Your task to perform on an android device: set the timer Image 0: 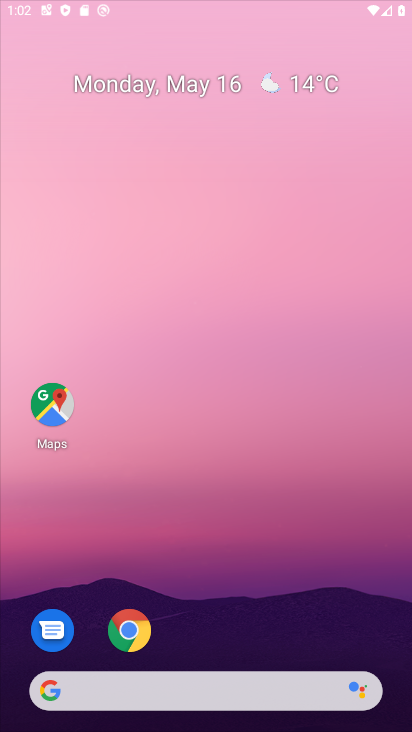
Step 0: click (205, 56)
Your task to perform on an android device: set the timer Image 1: 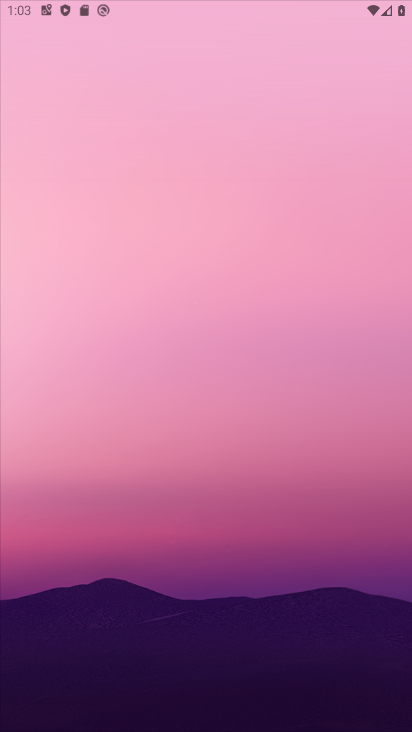
Step 1: press home button
Your task to perform on an android device: set the timer Image 2: 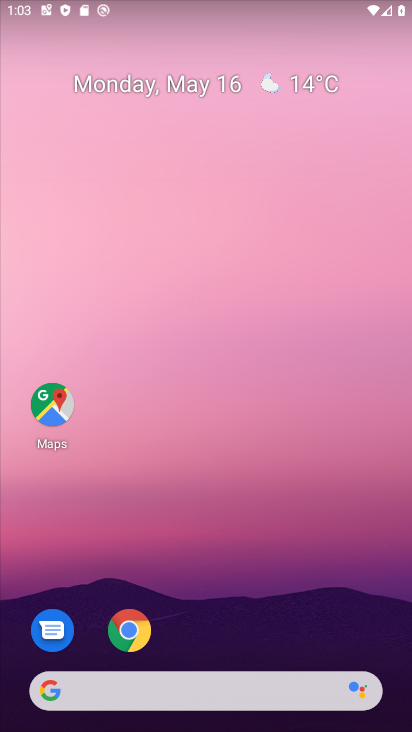
Step 2: drag from (229, 605) to (219, 86)
Your task to perform on an android device: set the timer Image 3: 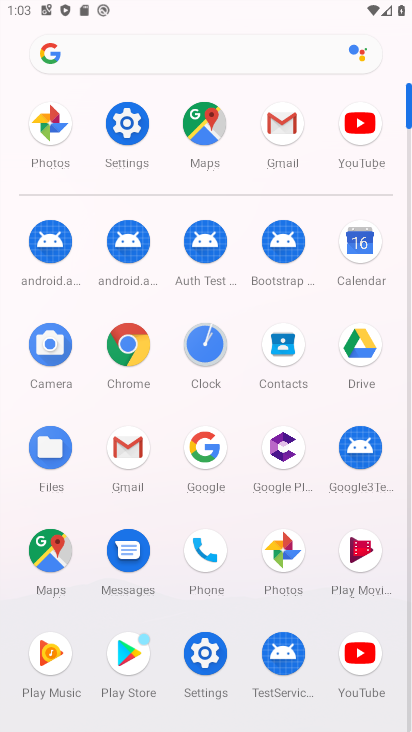
Step 3: click (203, 347)
Your task to perform on an android device: set the timer Image 4: 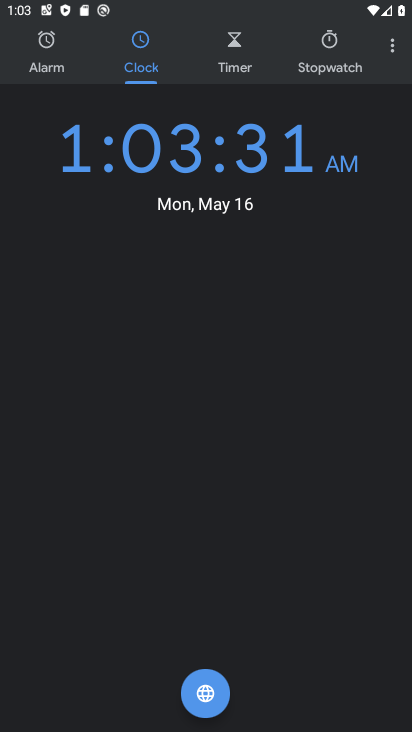
Step 4: click (233, 38)
Your task to perform on an android device: set the timer Image 5: 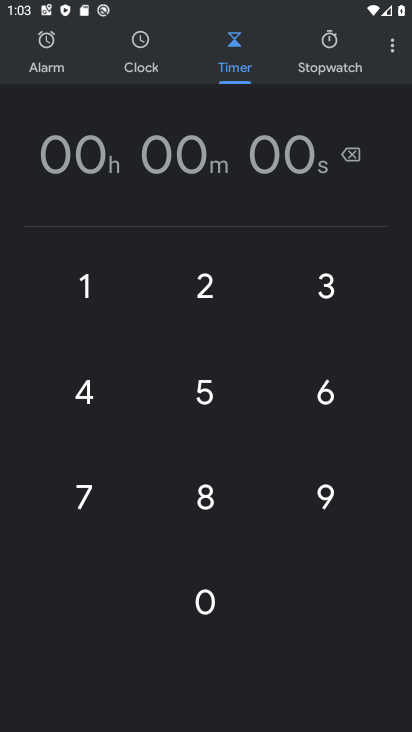
Step 5: task complete